Your task to perform on an android device: open wifi settings Image 0: 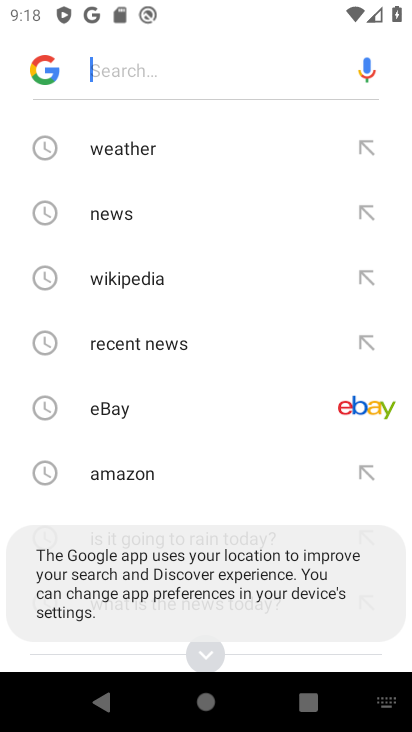
Step 0: press home button
Your task to perform on an android device: open wifi settings Image 1: 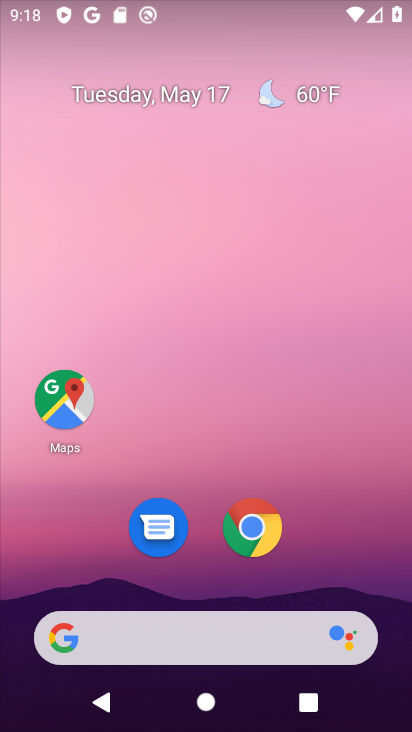
Step 1: drag from (188, 516) to (346, 11)
Your task to perform on an android device: open wifi settings Image 2: 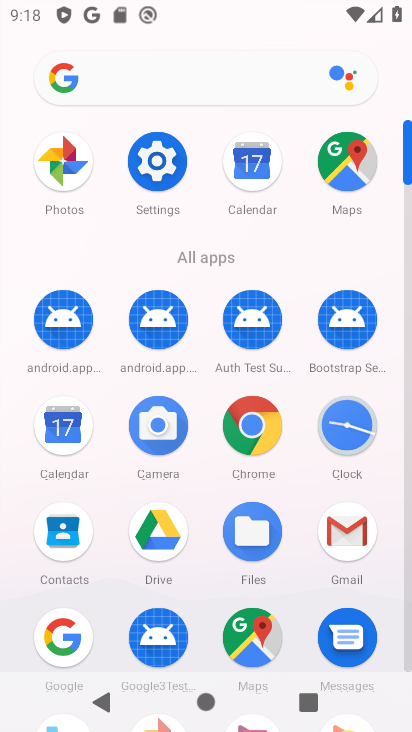
Step 2: click (150, 149)
Your task to perform on an android device: open wifi settings Image 3: 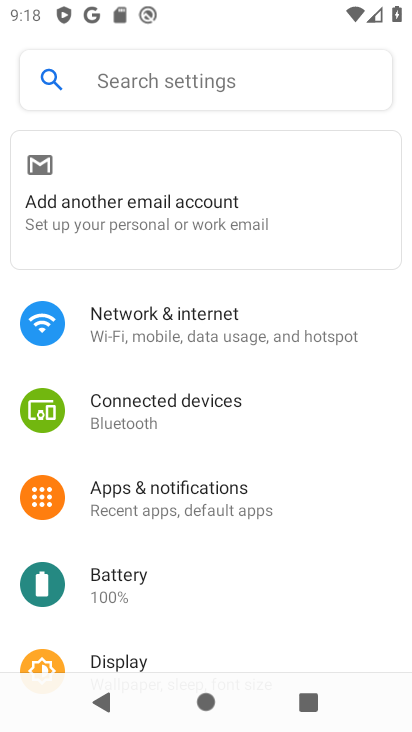
Step 3: click (190, 319)
Your task to perform on an android device: open wifi settings Image 4: 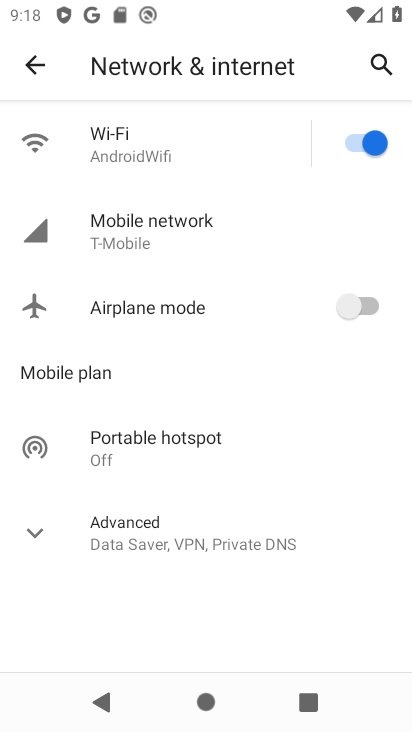
Step 4: click (184, 157)
Your task to perform on an android device: open wifi settings Image 5: 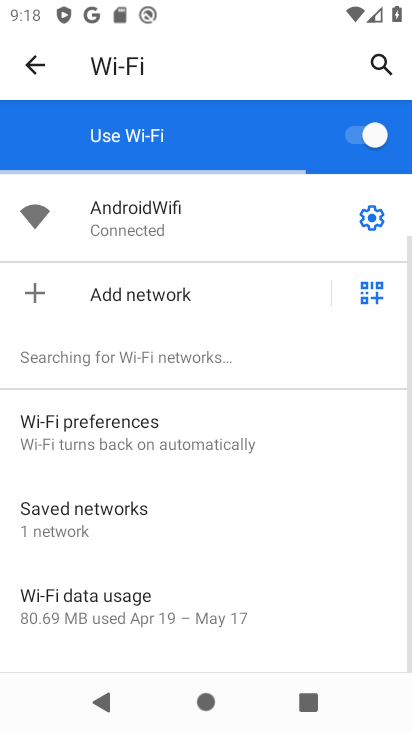
Step 5: task complete